Your task to perform on an android device: Open ESPN.com Image 0: 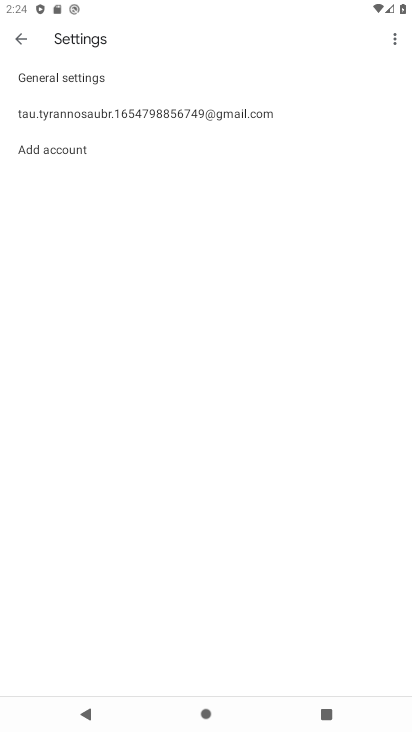
Step 0: press home button
Your task to perform on an android device: Open ESPN.com Image 1: 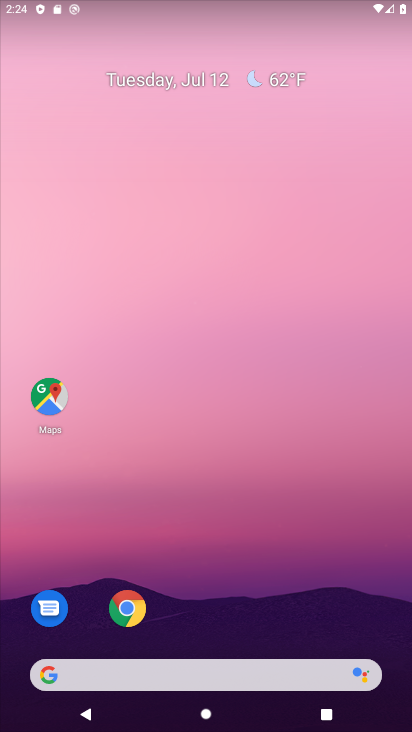
Step 1: click (127, 606)
Your task to perform on an android device: Open ESPN.com Image 2: 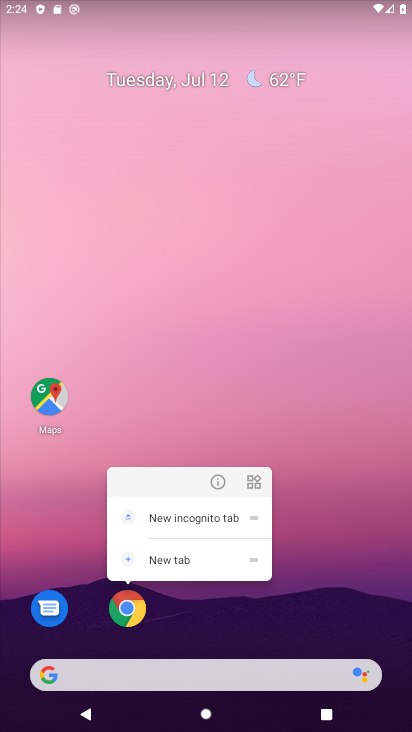
Step 2: click (127, 606)
Your task to perform on an android device: Open ESPN.com Image 3: 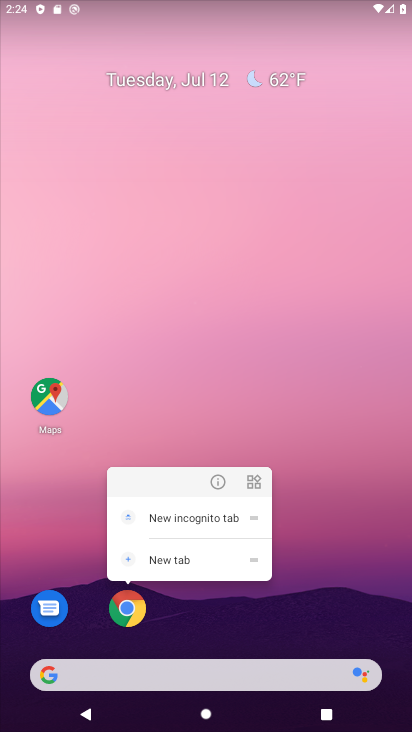
Step 3: click (125, 606)
Your task to perform on an android device: Open ESPN.com Image 4: 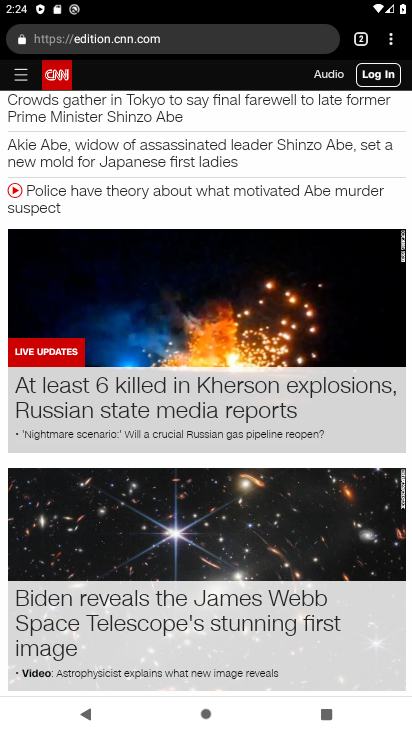
Step 4: drag from (390, 36) to (373, 88)
Your task to perform on an android device: Open ESPN.com Image 5: 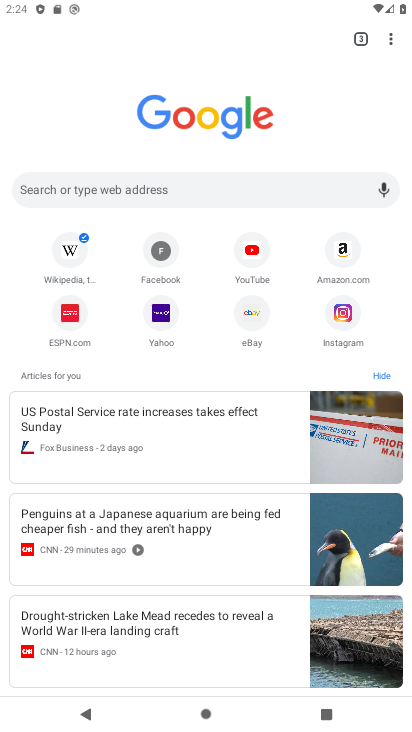
Step 5: click (71, 320)
Your task to perform on an android device: Open ESPN.com Image 6: 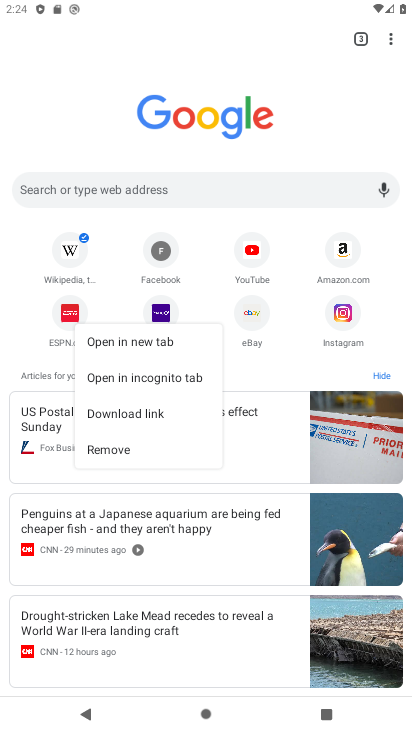
Step 6: click (71, 321)
Your task to perform on an android device: Open ESPN.com Image 7: 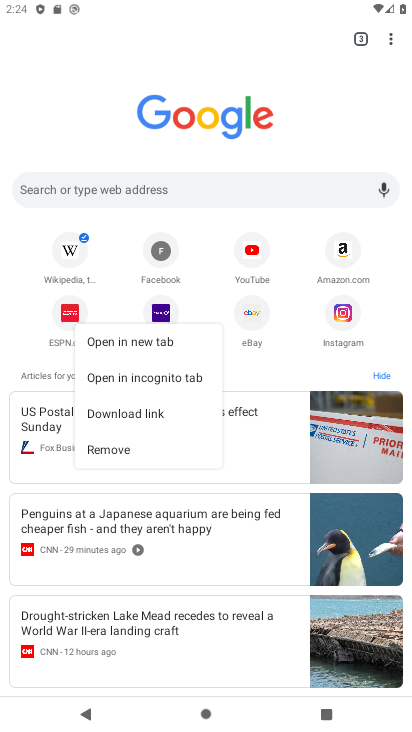
Step 7: click (71, 312)
Your task to perform on an android device: Open ESPN.com Image 8: 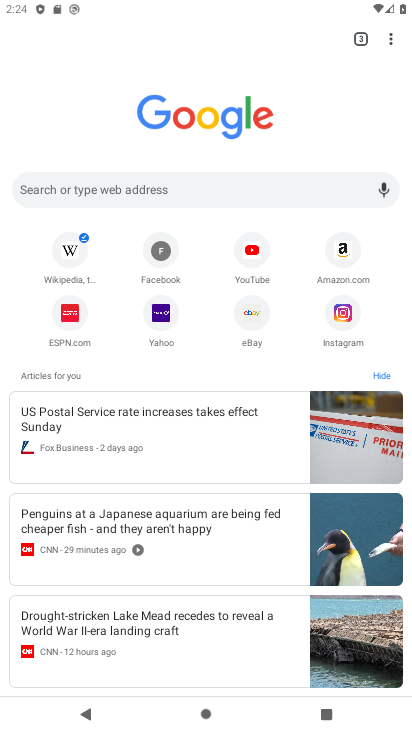
Step 8: click (67, 319)
Your task to perform on an android device: Open ESPN.com Image 9: 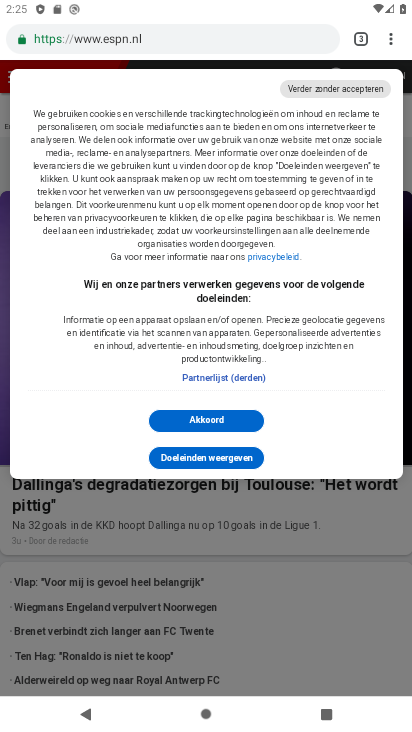
Step 9: click (204, 421)
Your task to perform on an android device: Open ESPN.com Image 10: 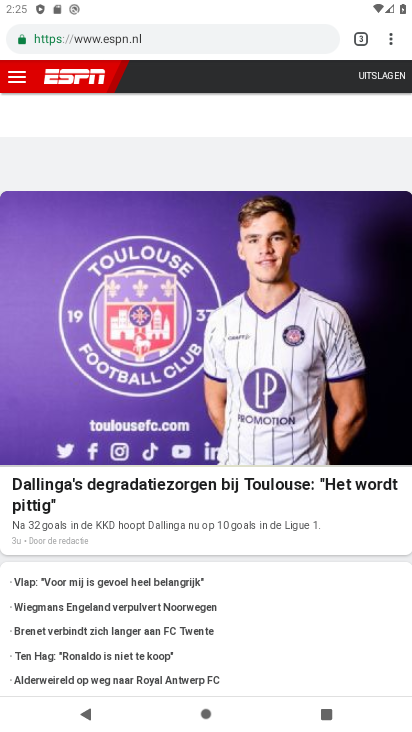
Step 10: task complete